Your task to perform on an android device: Show me popular videos on Youtube Image 0: 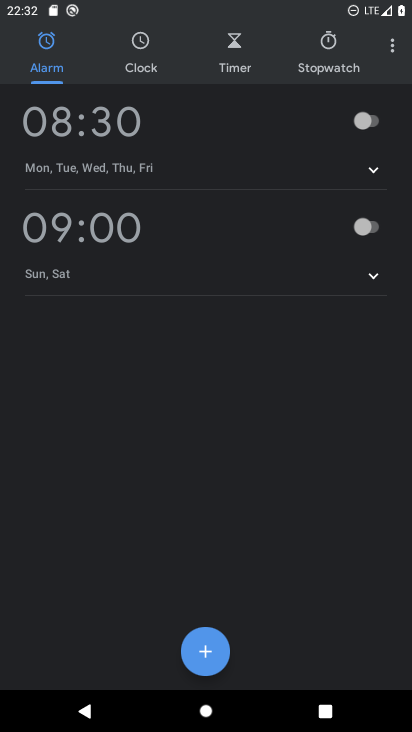
Step 0: press home button
Your task to perform on an android device: Show me popular videos on Youtube Image 1: 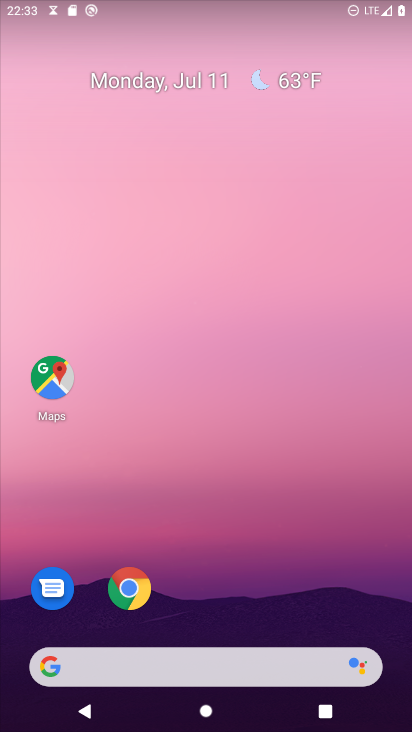
Step 1: drag from (233, 620) to (211, 122)
Your task to perform on an android device: Show me popular videos on Youtube Image 2: 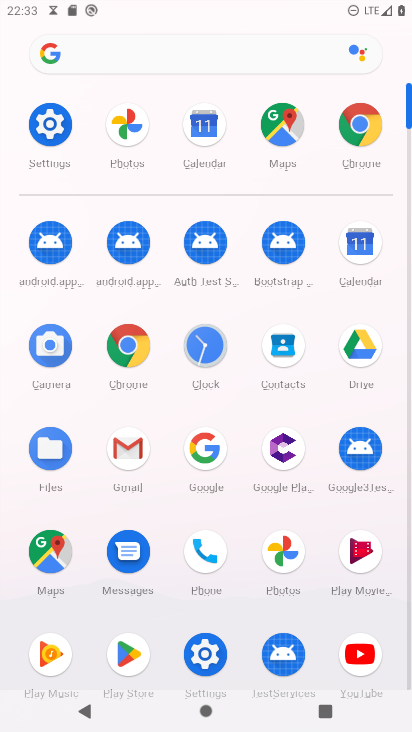
Step 2: click (356, 657)
Your task to perform on an android device: Show me popular videos on Youtube Image 3: 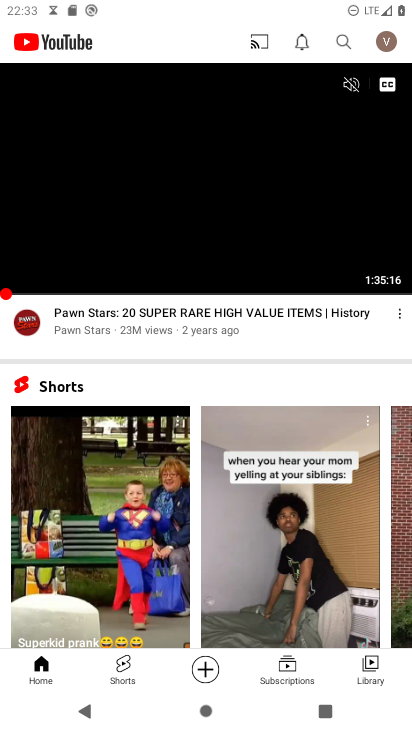
Step 3: click (35, 662)
Your task to perform on an android device: Show me popular videos on Youtube Image 4: 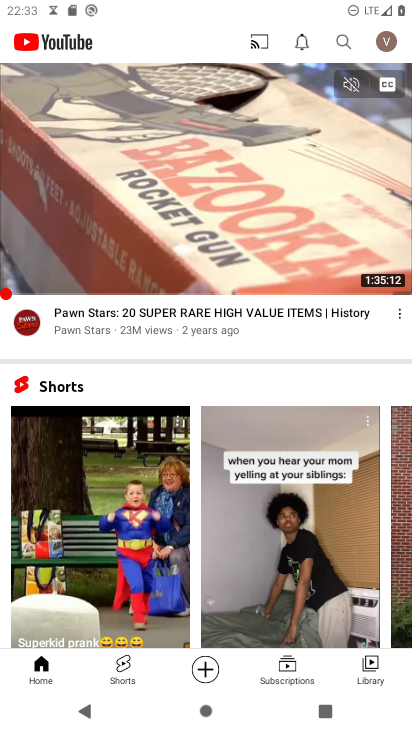
Step 4: click (38, 673)
Your task to perform on an android device: Show me popular videos on Youtube Image 5: 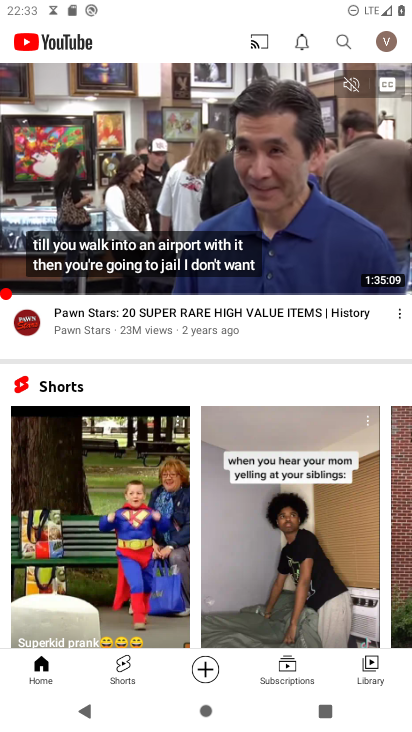
Step 5: drag from (314, 353) to (205, 667)
Your task to perform on an android device: Show me popular videos on Youtube Image 6: 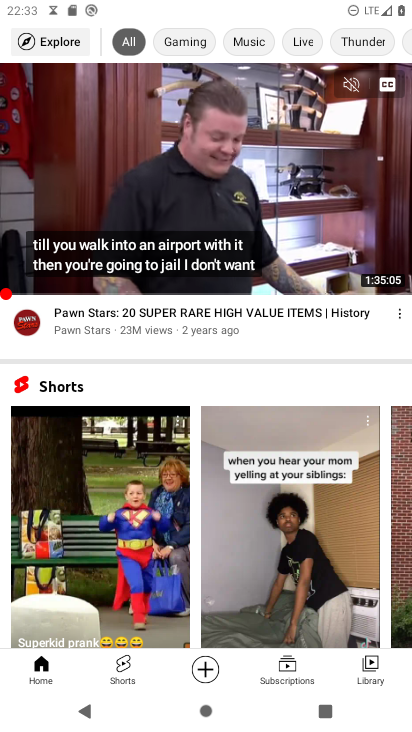
Step 6: click (58, 41)
Your task to perform on an android device: Show me popular videos on Youtube Image 7: 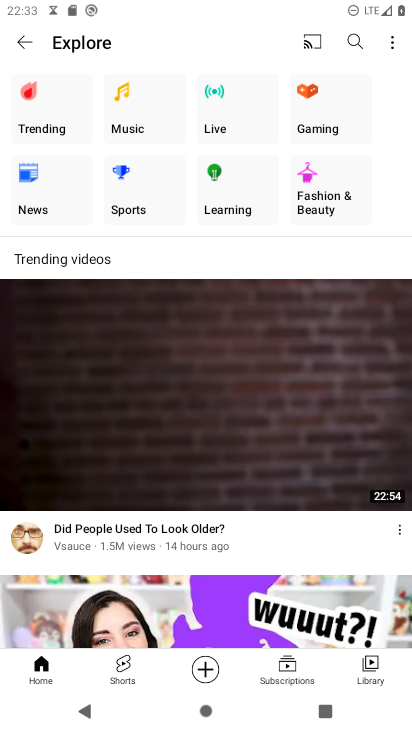
Step 7: click (31, 134)
Your task to perform on an android device: Show me popular videos on Youtube Image 8: 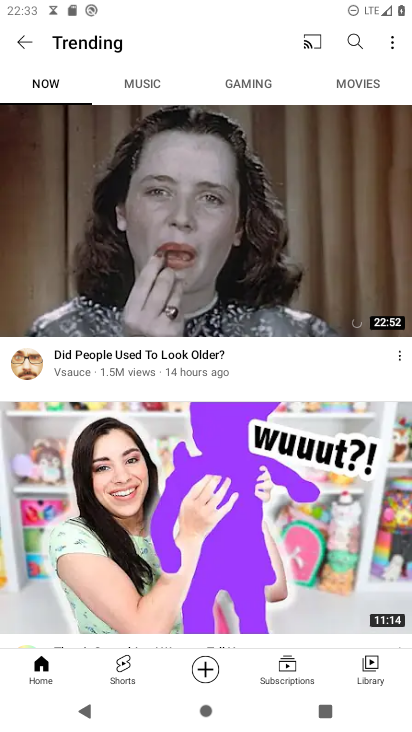
Step 8: task complete